Your task to perform on an android device: Open settings Image 0: 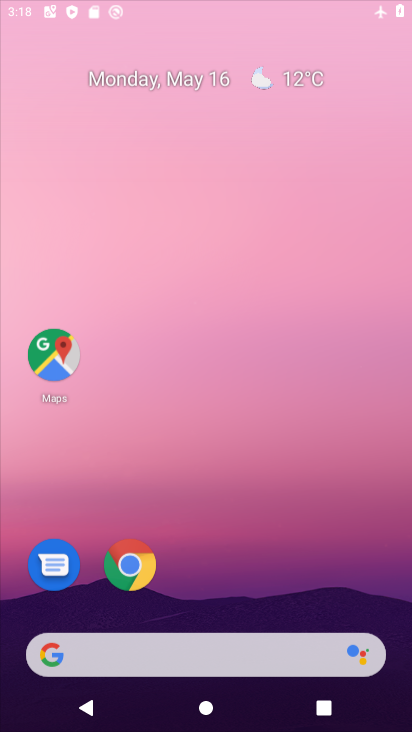
Step 0: press home button
Your task to perform on an android device: Open settings Image 1: 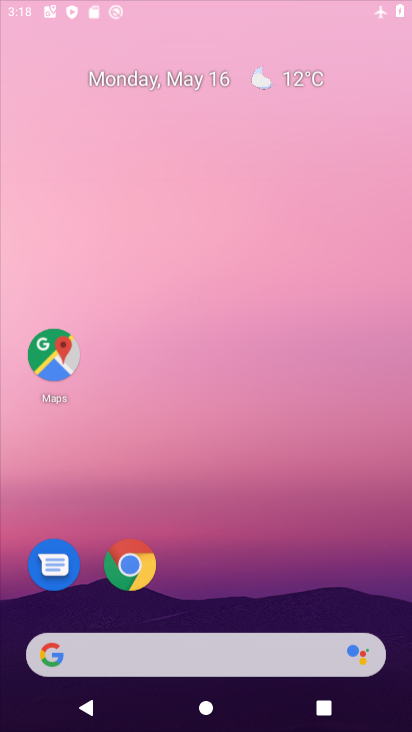
Step 1: click (399, 475)
Your task to perform on an android device: Open settings Image 2: 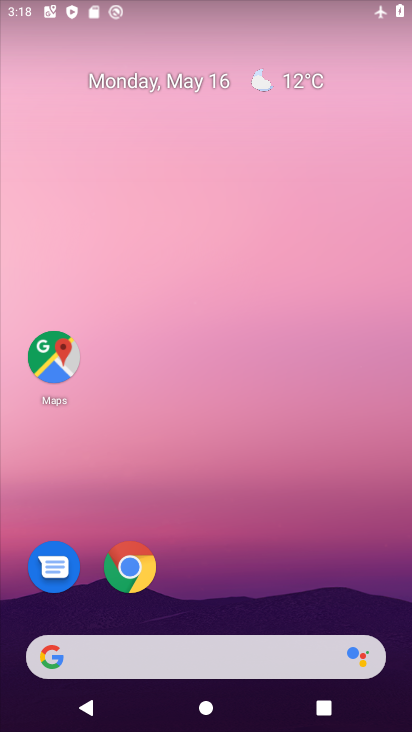
Step 2: drag from (320, 585) to (405, 13)
Your task to perform on an android device: Open settings Image 3: 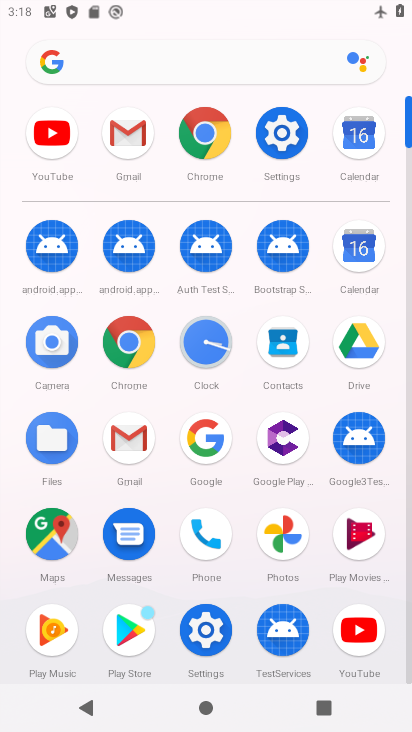
Step 3: click (286, 164)
Your task to perform on an android device: Open settings Image 4: 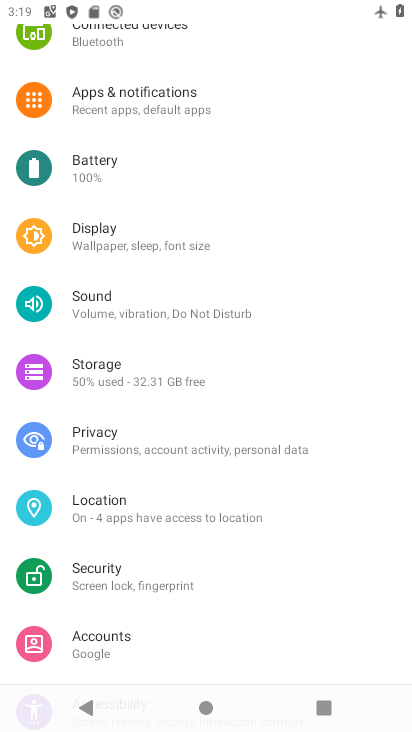
Step 4: task complete